Your task to perform on an android device: add a label to a message in the gmail app Image 0: 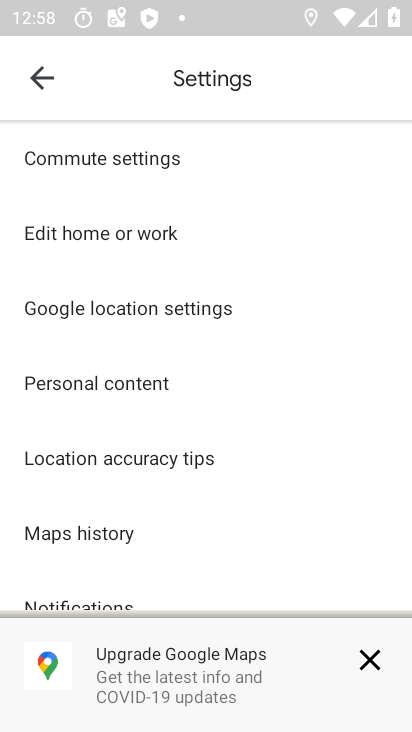
Step 0: press back button
Your task to perform on an android device: add a label to a message in the gmail app Image 1: 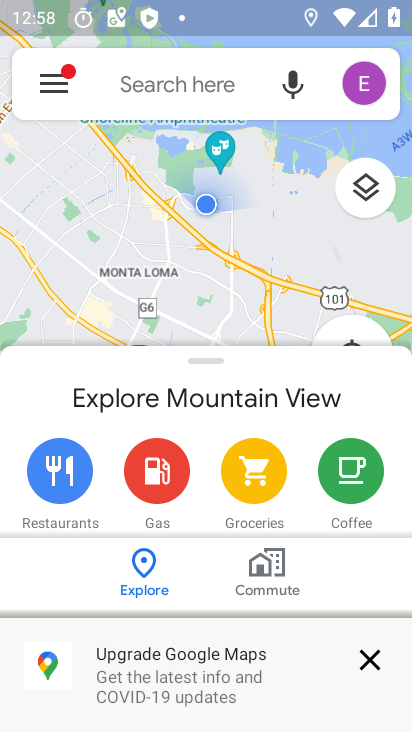
Step 1: press back button
Your task to perform on an android device: add a label to a message in the gmail app Image 2: 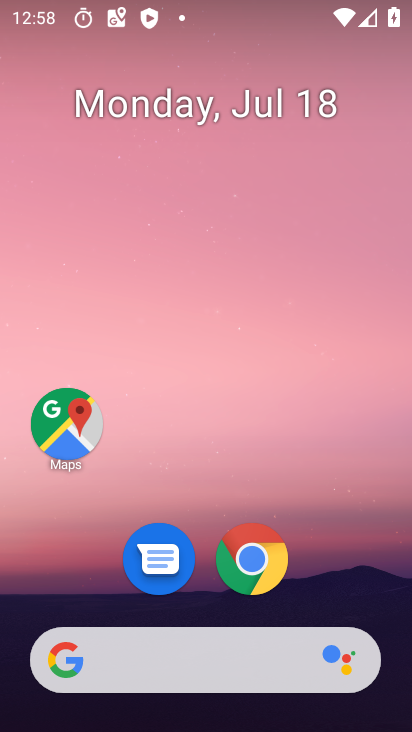
Step 2: drag from (56, 581) to (192, 2)
Your task to perform on an android device: add a label to a message in the gmail app Image 3: 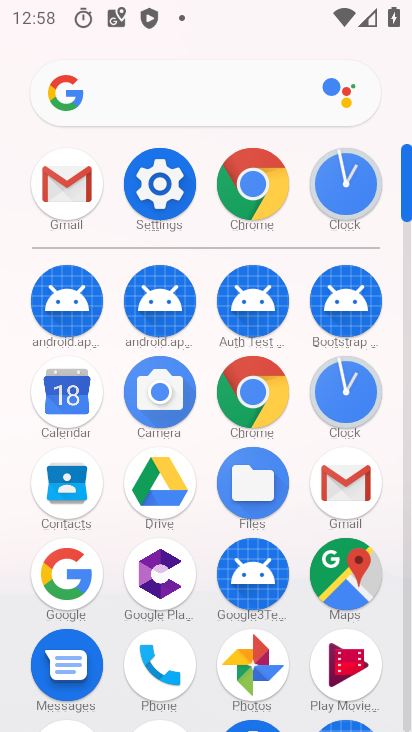
Step 3: click (58, 179)
Your task to perform on an android device: add a label to a message in the gmail app Image 4: 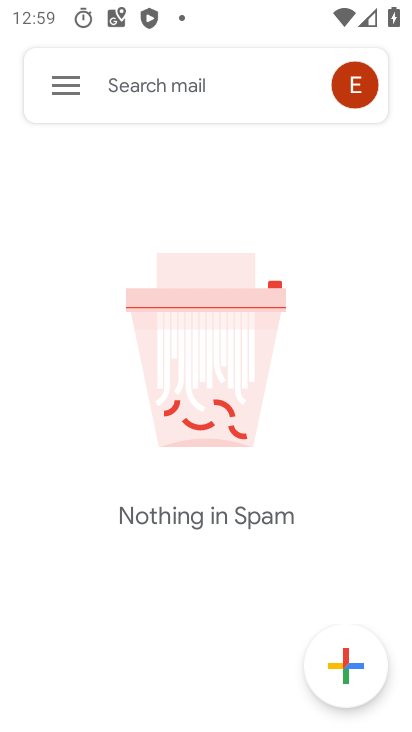
Step 4: click (57, 84)
Your task to perform on an android device: add a label to a message in the gmail app Image 5: 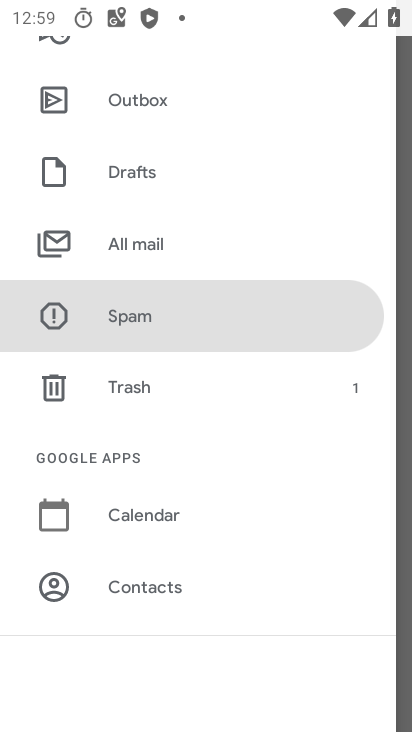
Step 5: click (157, 238)
Your task to perform on an android device: add a label to a message in the gmail app Image 6: 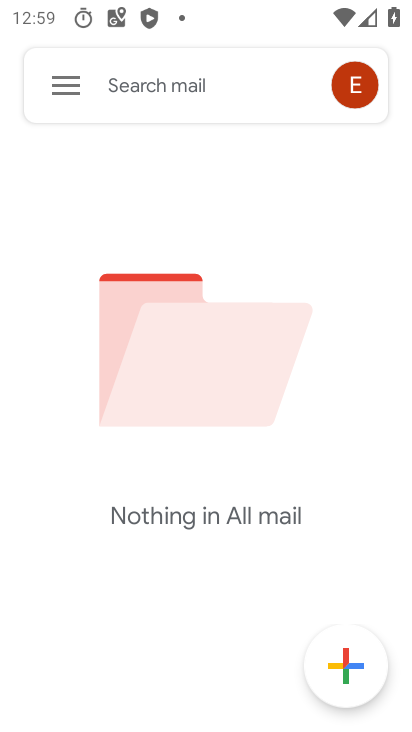
Step 6: task complete